Your task to perform on an android device: Search for flights from Tokyo to Seoul Image 0: 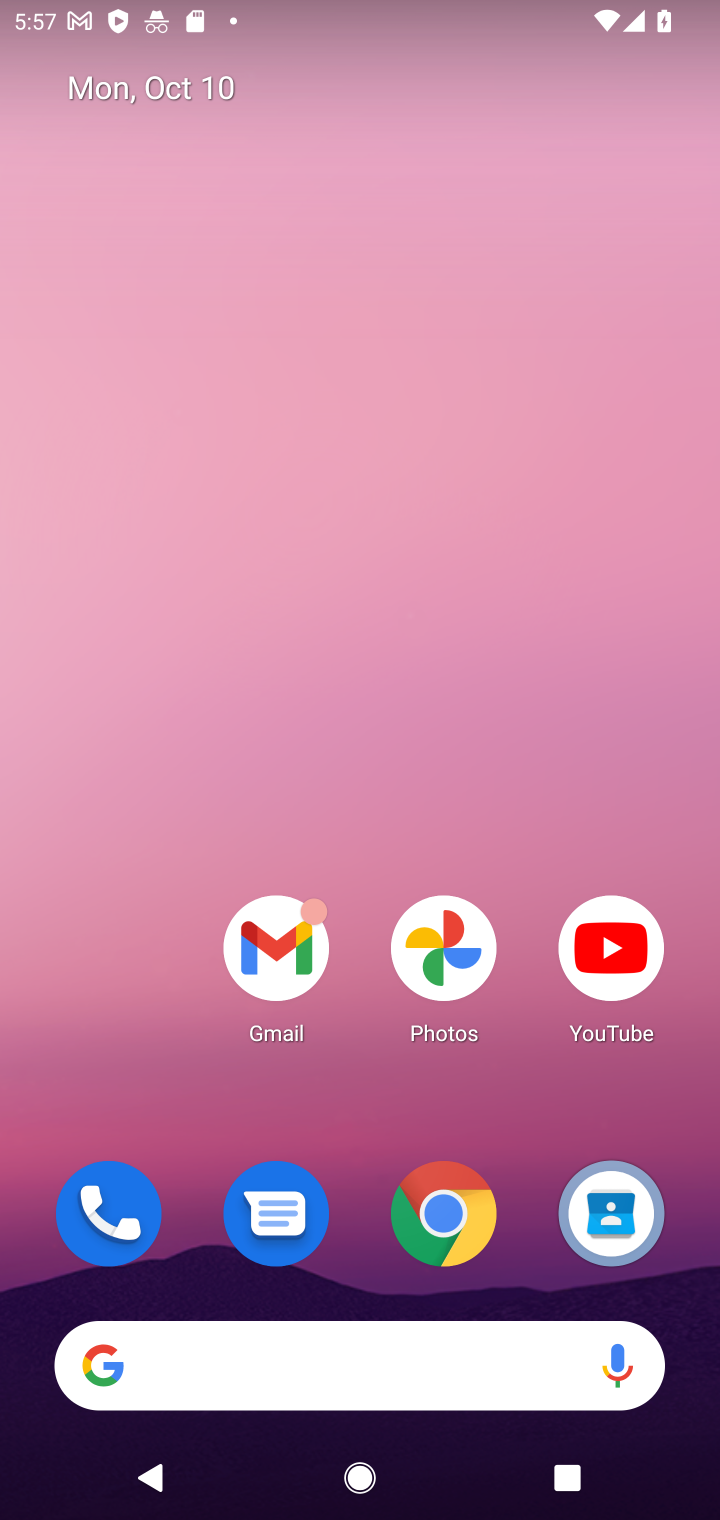
Step 0: click (306, 1357)
Your task to perform on an android device: Search for flights from Tokyo to Seoul Image 1: 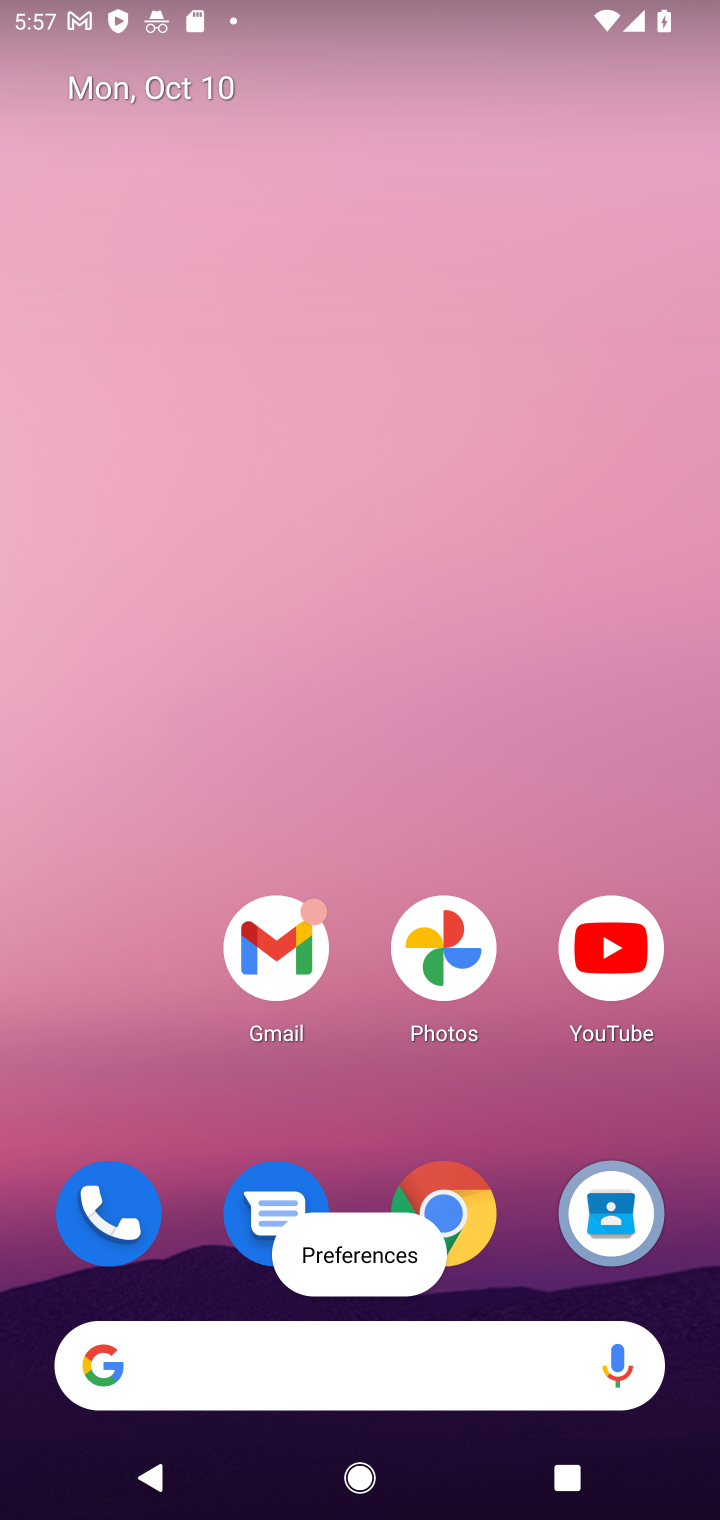
Step 1: click (272, 1372)
Your task to perform on an android device: Search for flights from Tokyo to Seoul Image 2: 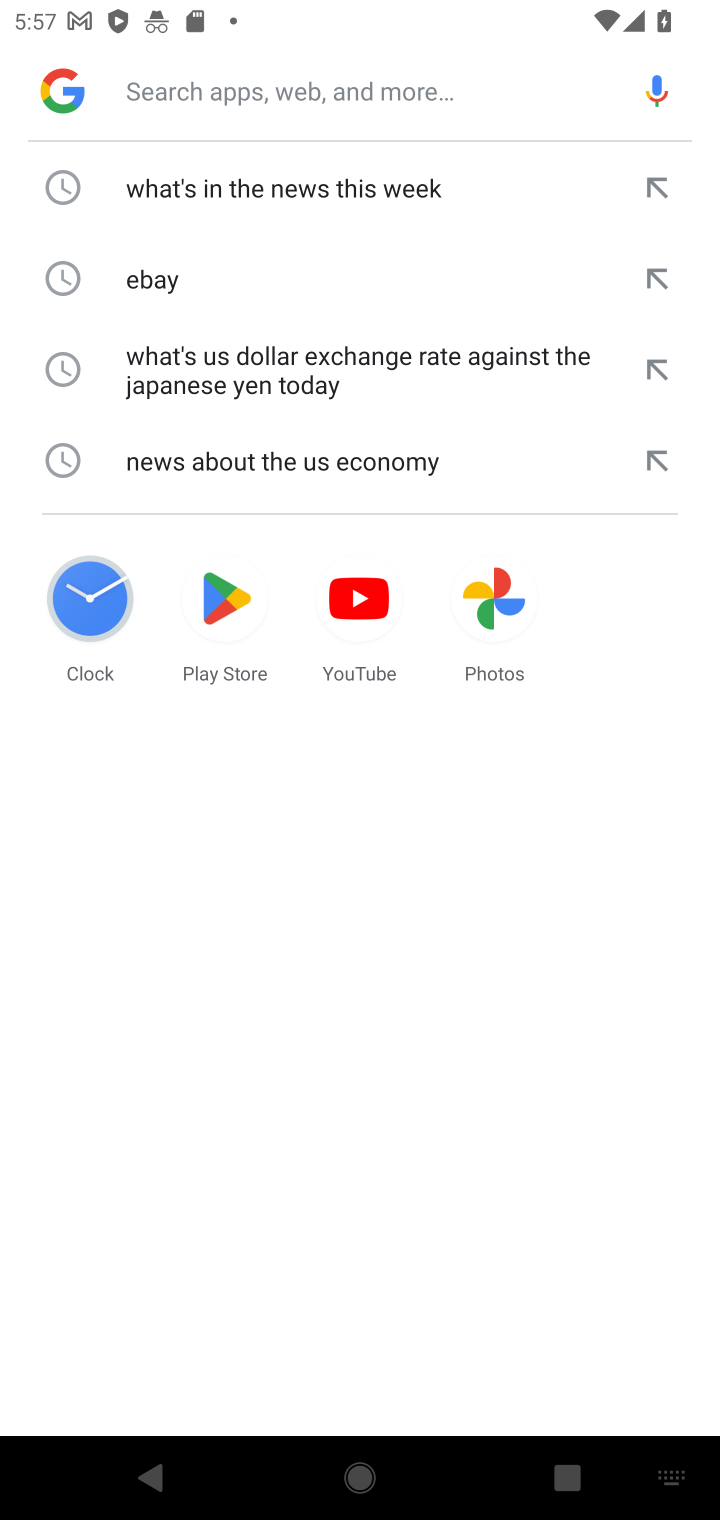
Step 2: click (276, 98)
Your task to perform on an android device: Search for flights from Tokyo to Seoul Image 3: 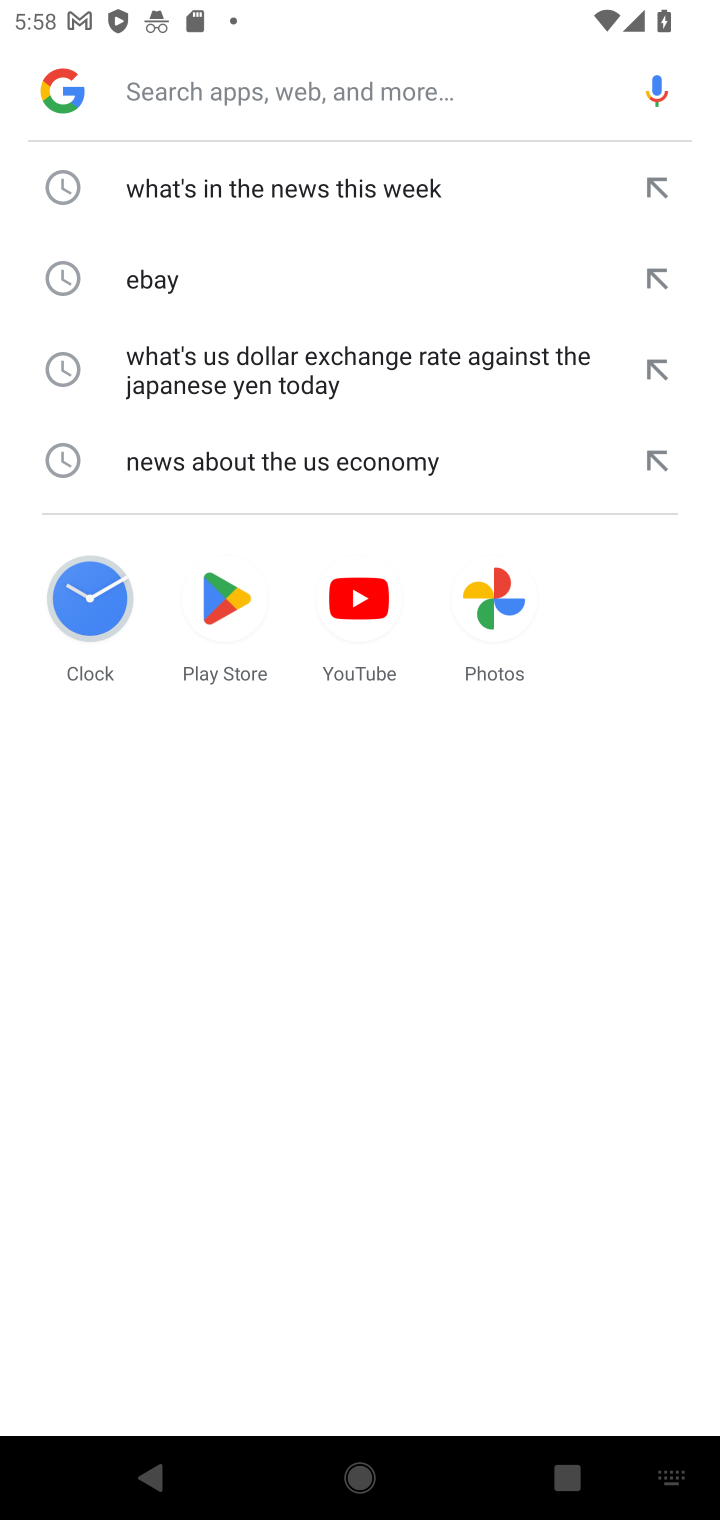
Step 3: type "Search for flights from Tokyo to Seoul"
Your task to perform on an android device: Search for flights from Tokyo to Seoul Image 4: 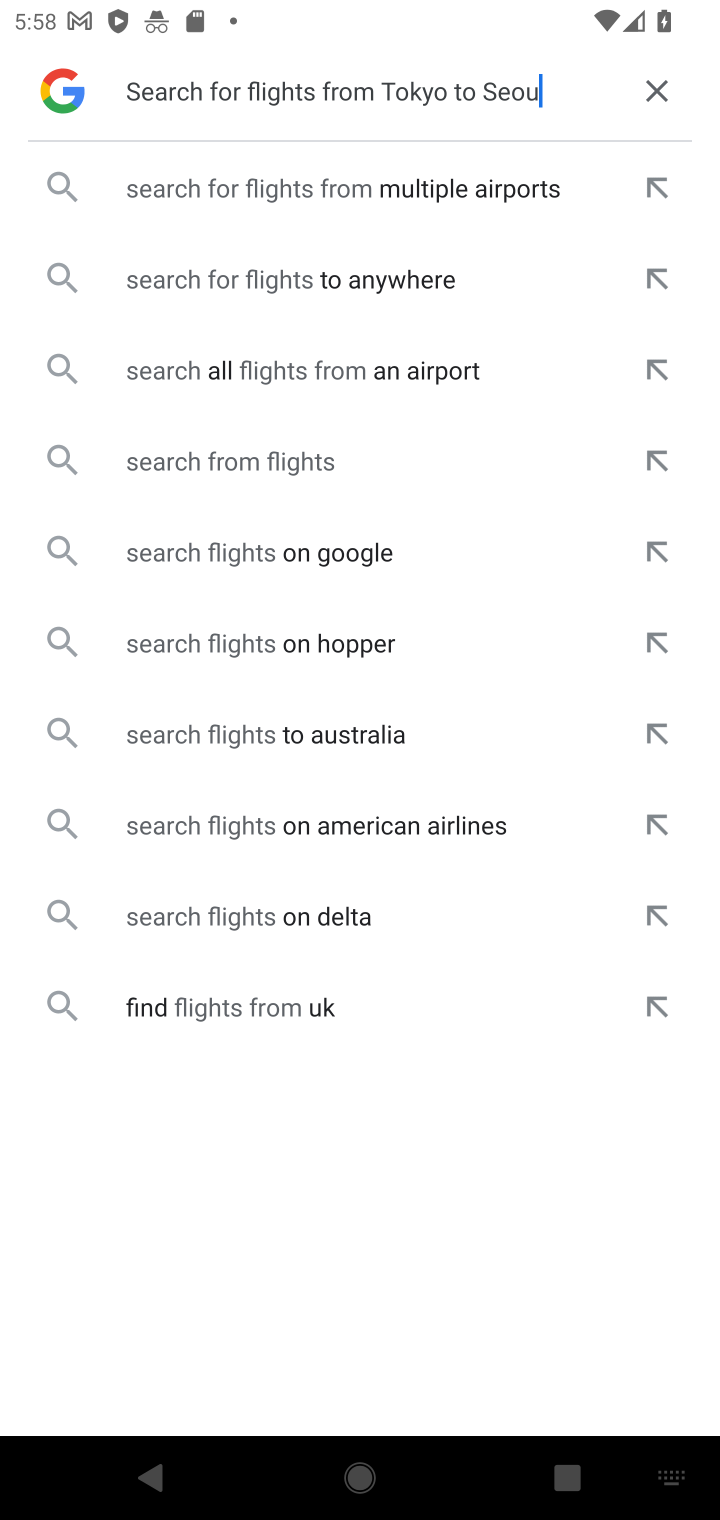
Step 4: click (452, 1160)
Your task to perform on an android device: Search for flights from Tokyo to Seoul Image 5: 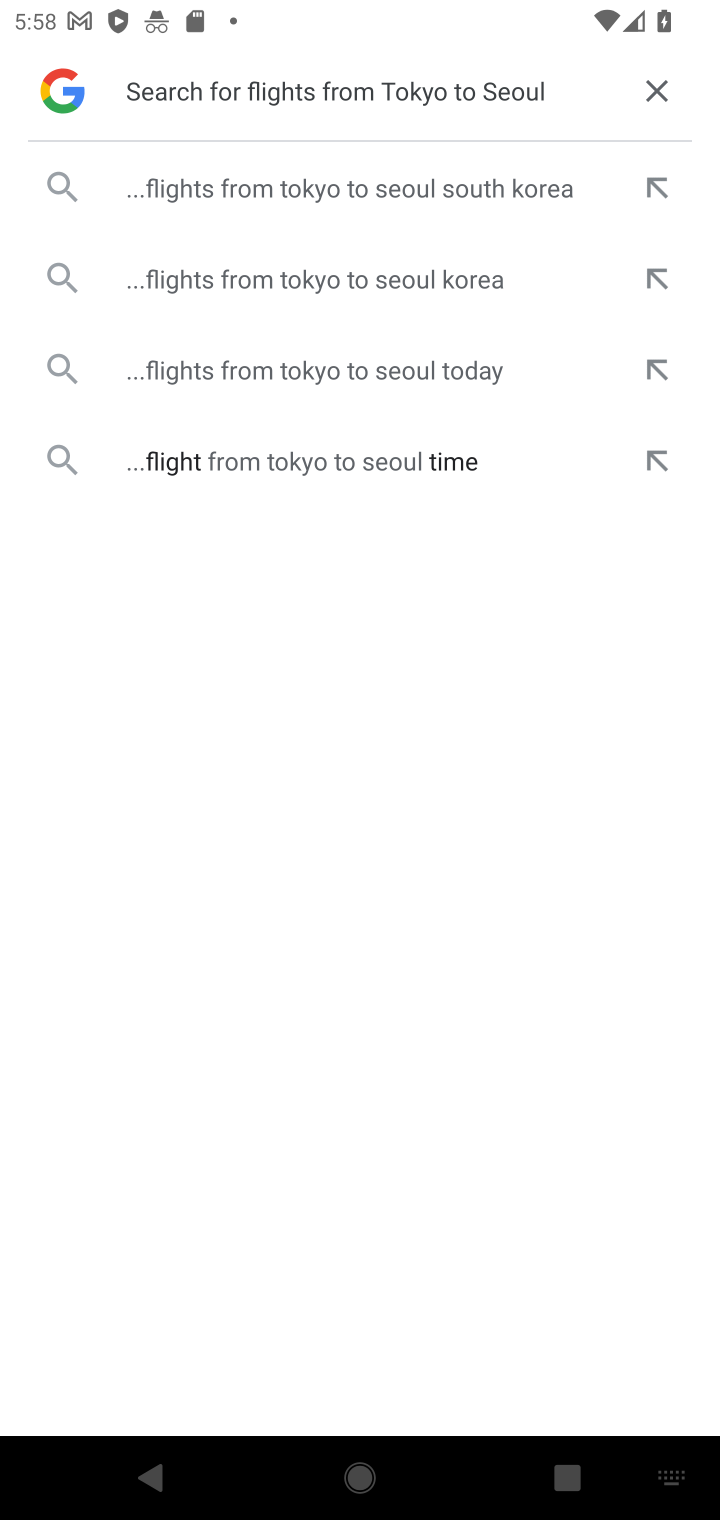
Step 5: click (327, 189)
Your task to perform on an android device: Search for flights from Tokyo to Seoul Image 6: 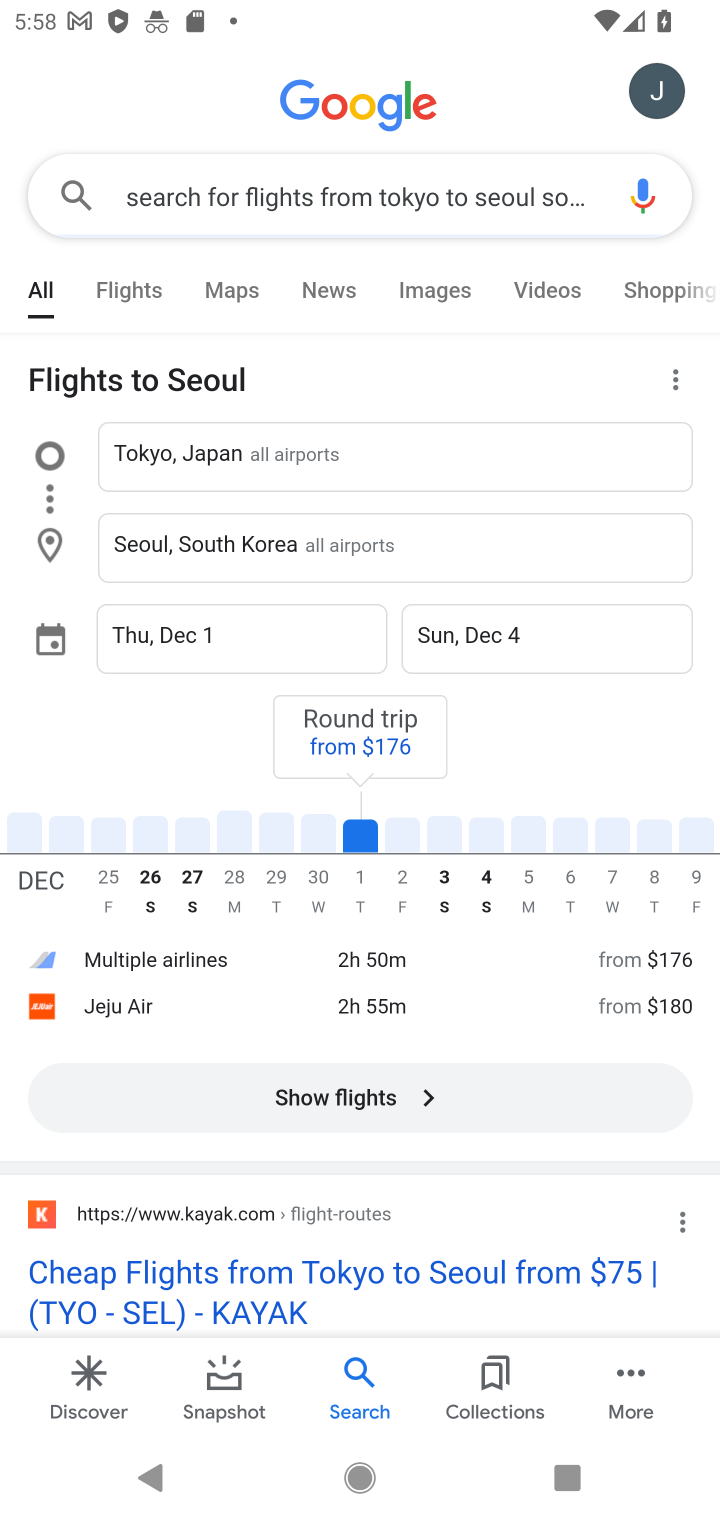
Step 6: task complete